Your task to perform on an android device: turn on translation in the chrome app Image 0: 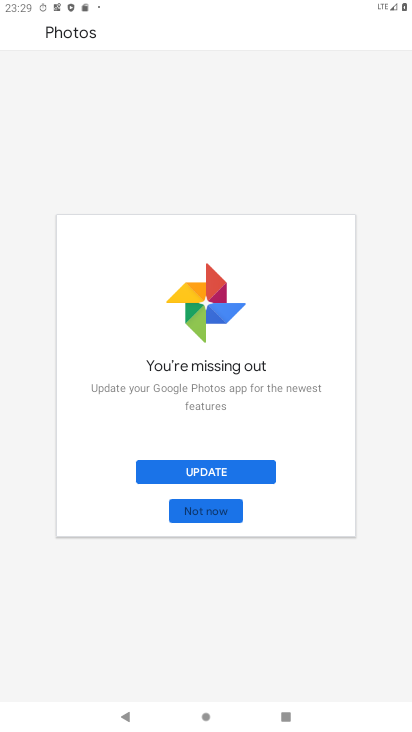
Step 0: press home button
Your task to perform on an android device: turn on translation in the chrome app Image 1: 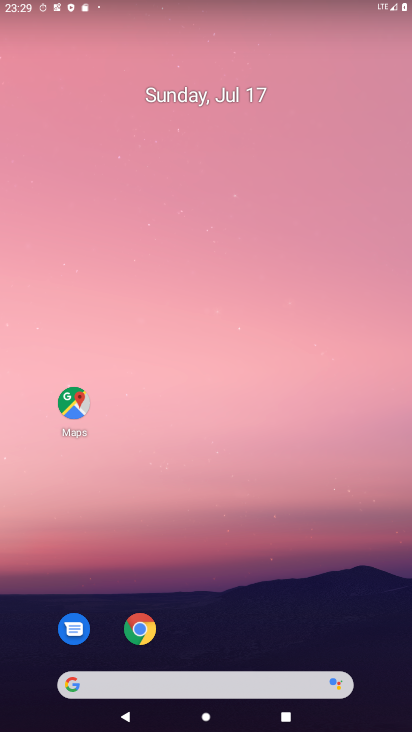
Step 1: click (137, 628)
Your task to perform on an android device: turn on translation in the chrome app Image 2: 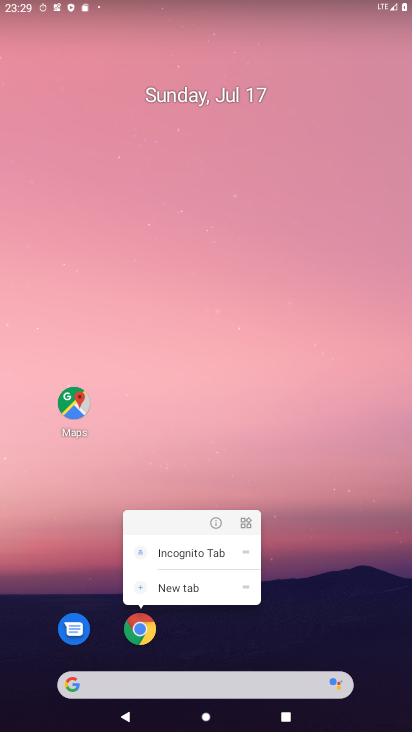
Step 2: click (142, 634)
Your task to perform on an android device: turn on translation in the chrome app Image 3: 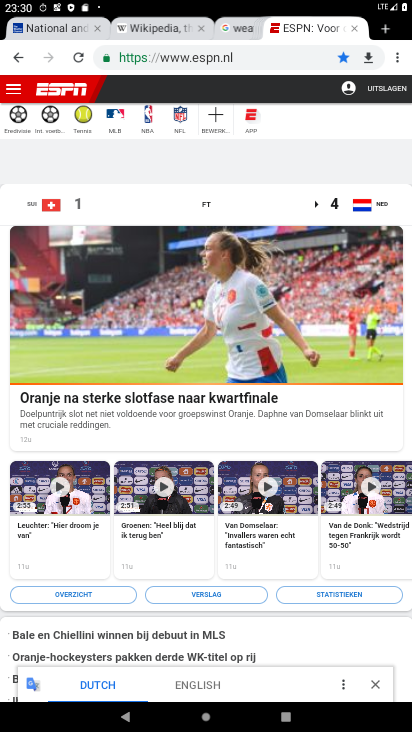
Step 3: click (397, 64)
Your task to perform on an android device: turn on translation in the chrome app Image 4: 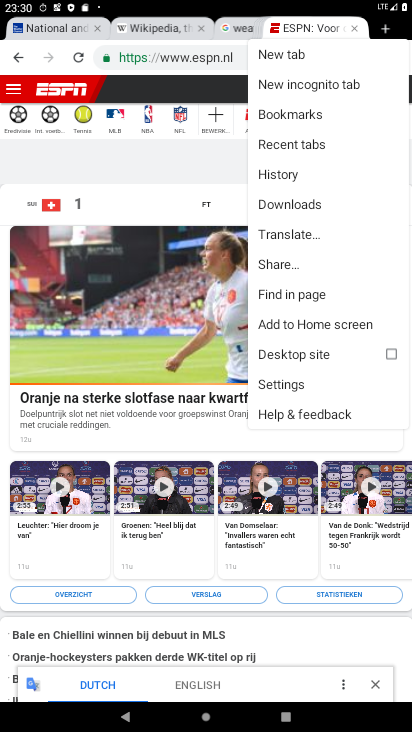
Step 4: click (283, 375)
Your task to perform on an android device: turn on translation in the chrome app Image 5: 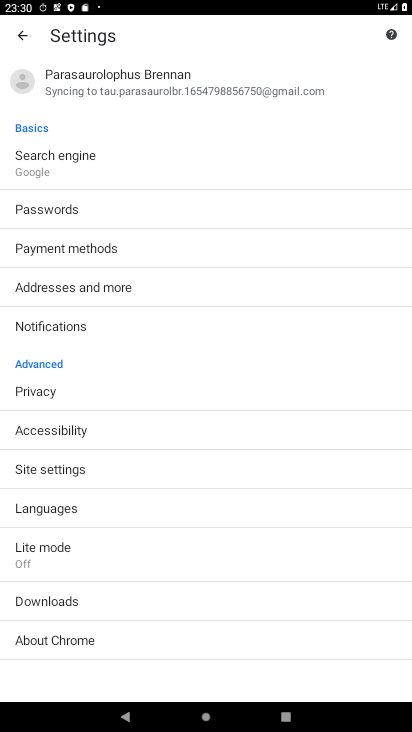
Step 5: click (45, 504)
Your task to perform on an android device: turn on translation in the chrome app Image 6: 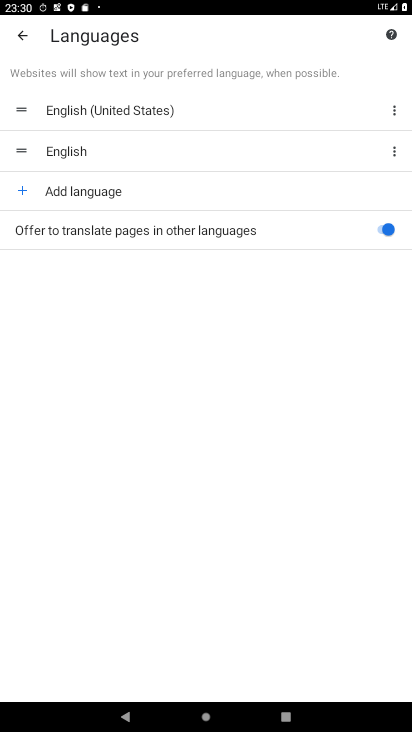
Step 6: task complete